Your task to perform on an android device: set default search engine in the chrome app Image 0: 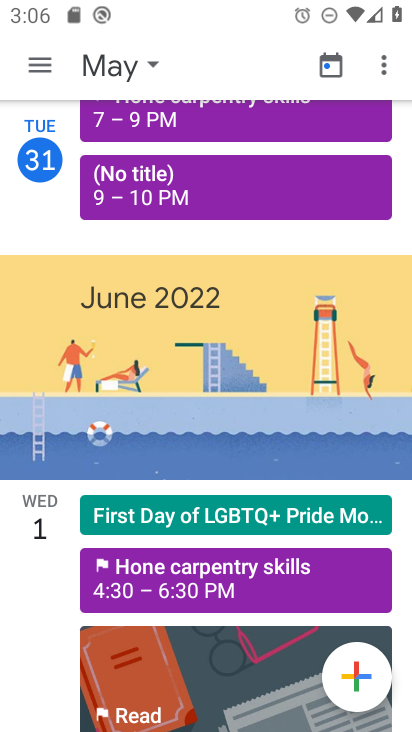
Step 0: drag from (251, 662) to (117, 150)
Your task to perform on an android device: set default search engine in the chrome app Image 1: 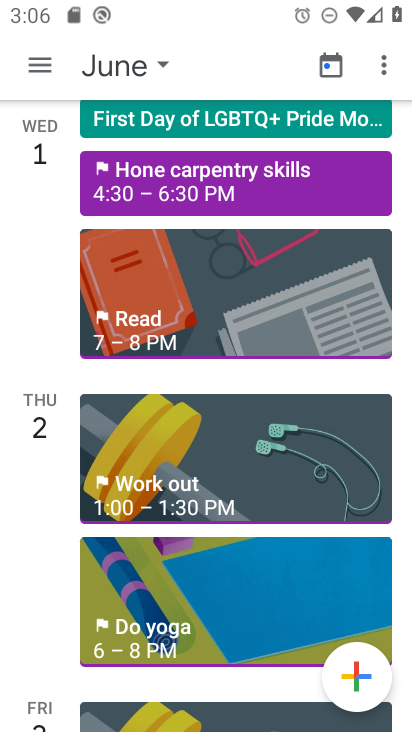
Step 1: press home button
Your task to perform on an android device: set default search engine in the chrome app Image 2: 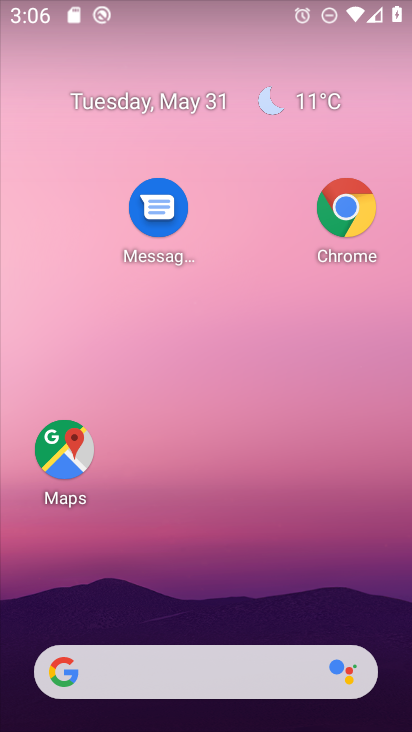
Step 2: drag from (228, 636) to (172, 202)
Your task to perform on an android device: set default search engine in the chrome app Image 3: 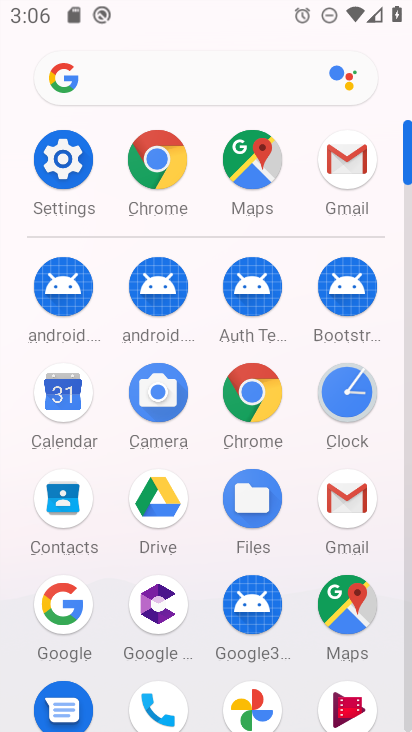
Step 3: click (233, 393)
Your task to perform on an android device: set default search engine in the chrome app Image 4: 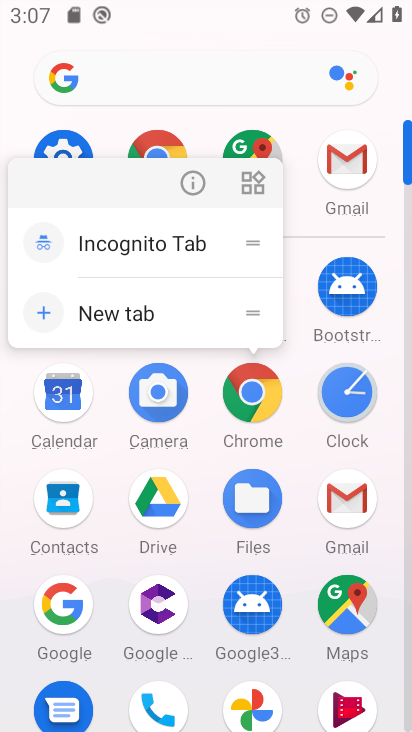
Step 4: click (269, 404)
Your task to perform on an android device: set default search engine in the chrome app Image 5: 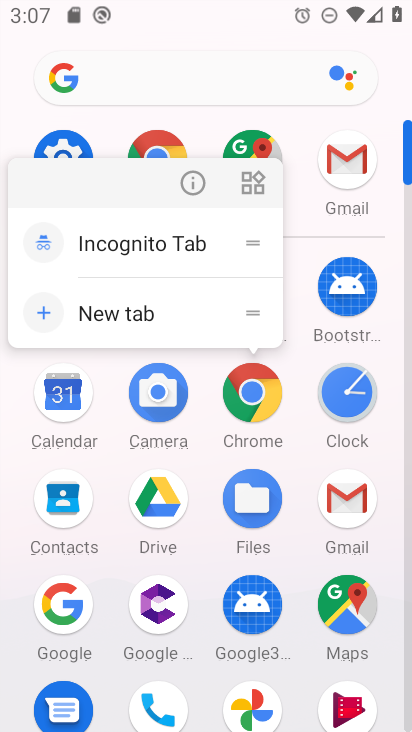
Step 5: click (193, 193)
Your task to perform on an android device: set default search engine in the chrome app Image 6: 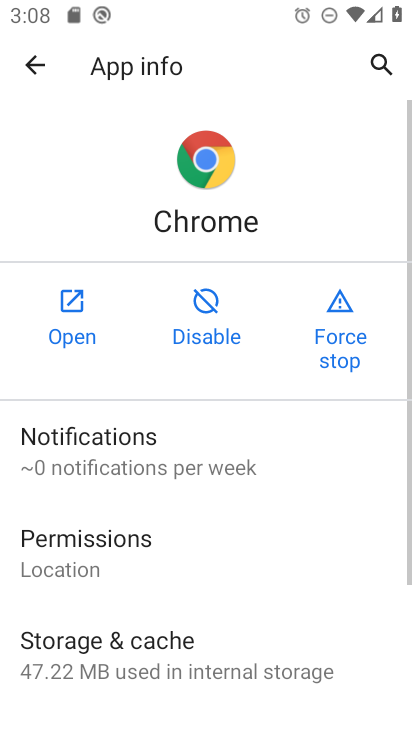
Step 6: click (62, 303)
Your task to perform on an android device: set default search engine in the chrome app Image 7: 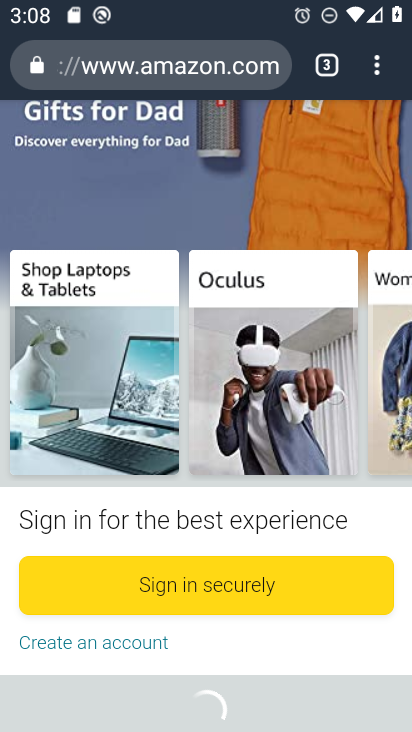
Step 7: click (366, 76)
Your task to perform on an android device: set default search engine in the chrome app Image 8: 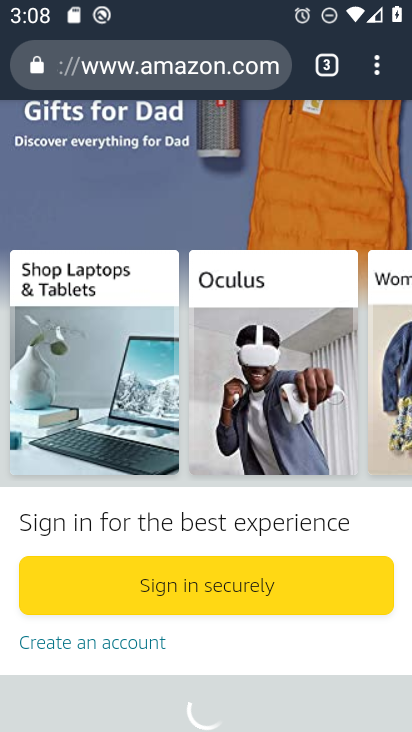
Step 8: drag from (372, 59) to (202, 628)
Your task to perform on an android device: set default search engine in the chrome app Image 9: 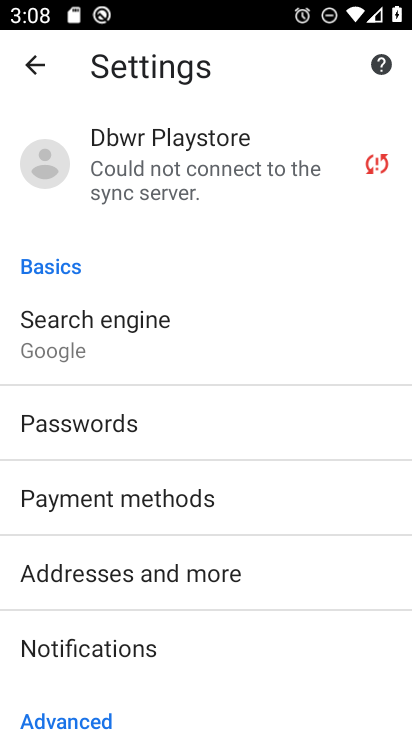
Step 9: click (157, 339)
Your task to perform on an android device: set default search engine in the chrome app Image 10: 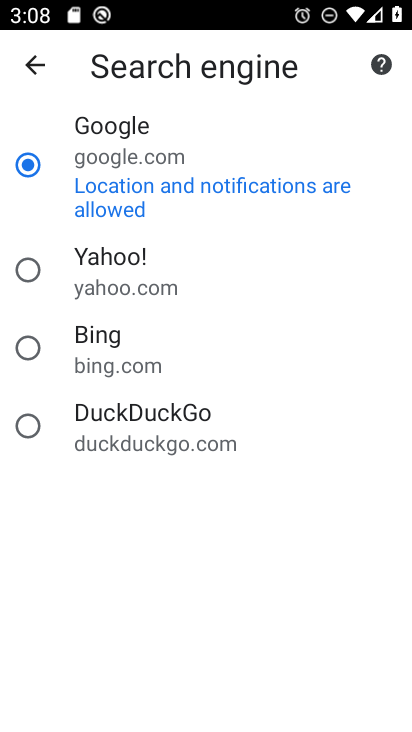
Step 10: task complete